Your task to perform on an android device: find which apps use the phone's location Image 0: 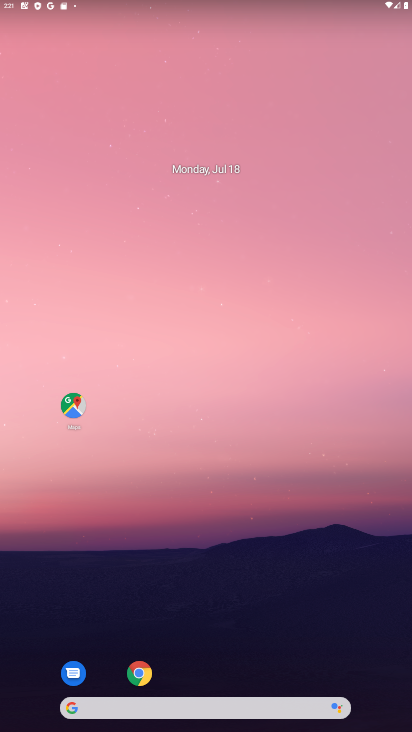
Step 0: drag from (206, 698) to (187, 148)
Your task to perform on an android device: find which apps use the phone's location Image 1: 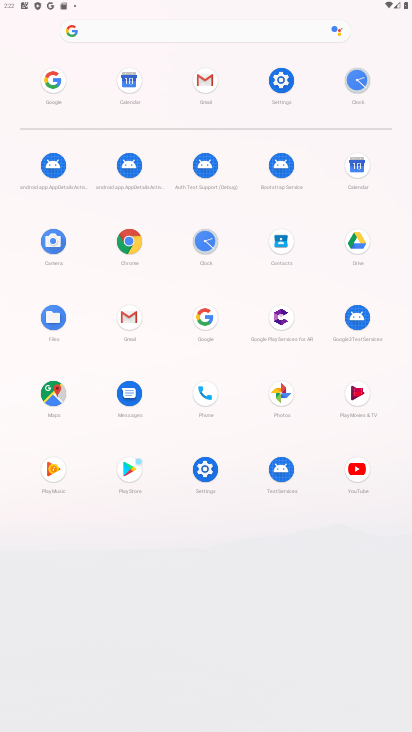
Step 1: press home button
Your task to perform on an android device: find which apps use the phone's location Image 2: 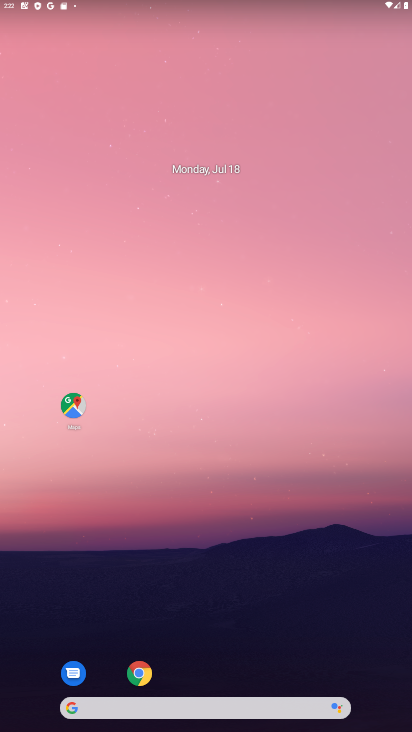
Step 2: drag from (196, 712) to (146, 151)
Your task to perform on an android device: find which apps use the phone's location Image 3: 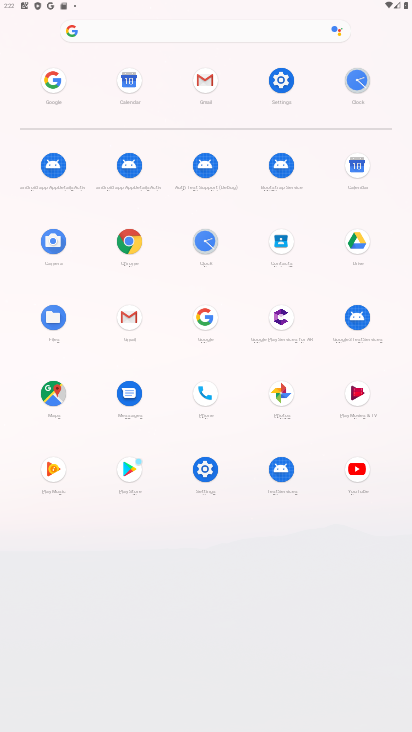
Step 3: click (206, 470)
Your task to perform on an android device: find which apps use the phone's location Image 4: 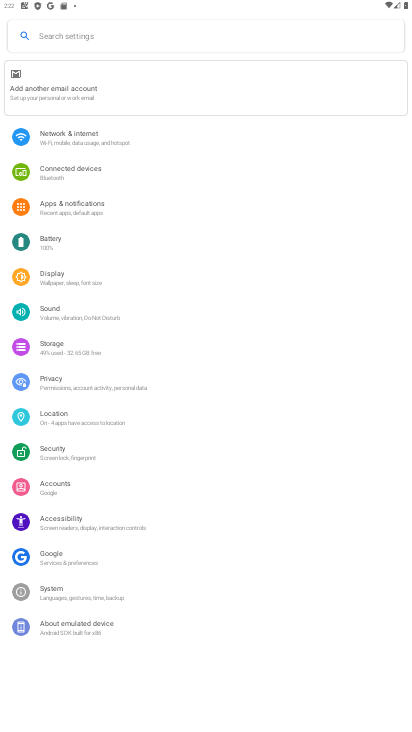
Step 4: click (53, 416)
Your task to perform on an android device: find which apps use the phone's location Image 5: 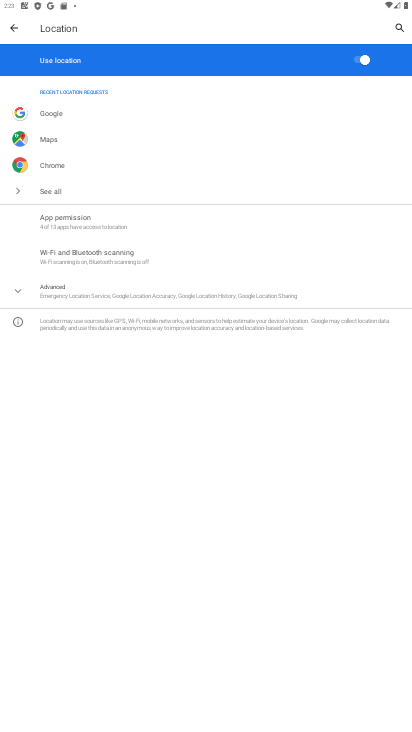
Step 5: click (113, 229)
Your task to perform on an android device: find which apps use the phone's location Image 6: 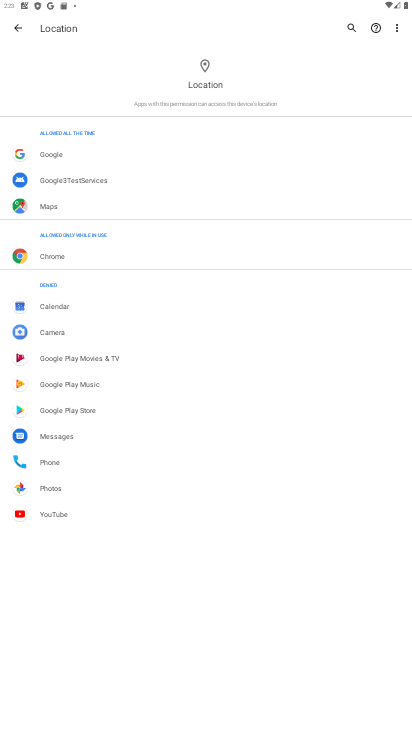
Step 6: click (35, 213)
Your task to perform on an android device: find which apps use the phone's location Image 7: 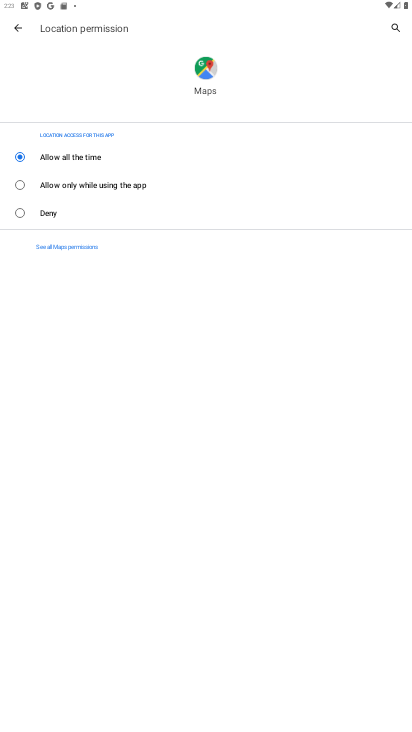
Step 7: task complete